Your task to perform on an android device: Go to notification settings Image 0: 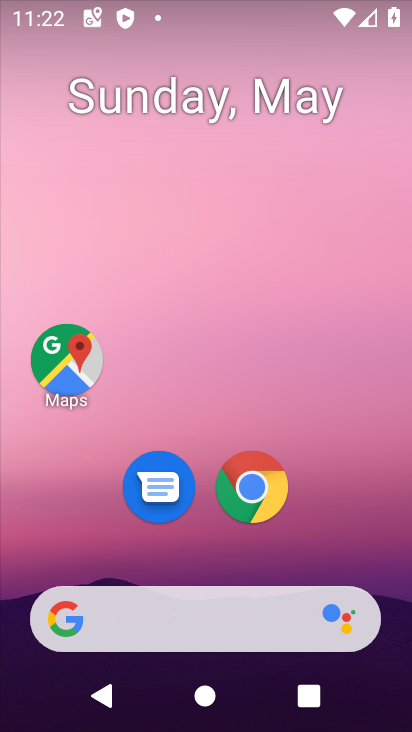
Step 0: drag from (358, 549) to (366, 68)
Your task to perform on an android device: Go to notification settings Image 1: 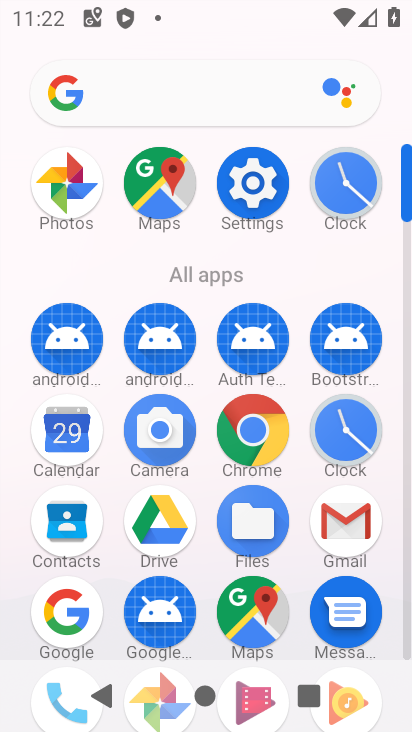
Step 1: click (264, 195)
Your task to perform on an android device: Go to notification settings Image 2: 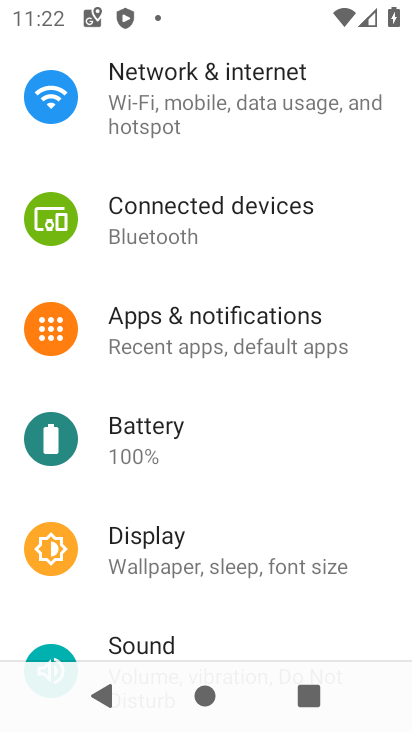
Step 2: drag from (360, 168) to (364, 294)
Your task to perform on an android device: Go to notification settings Image 3: 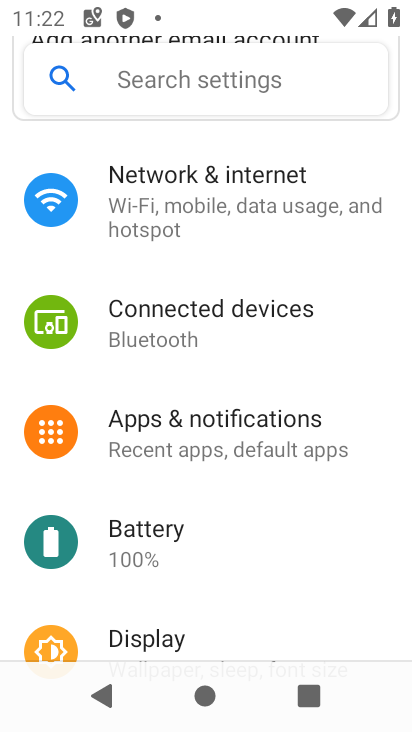
Step 3: drag from (364, 141) to (371, 385)
Your task to perform on an android device: Go to notification settings Image 4: 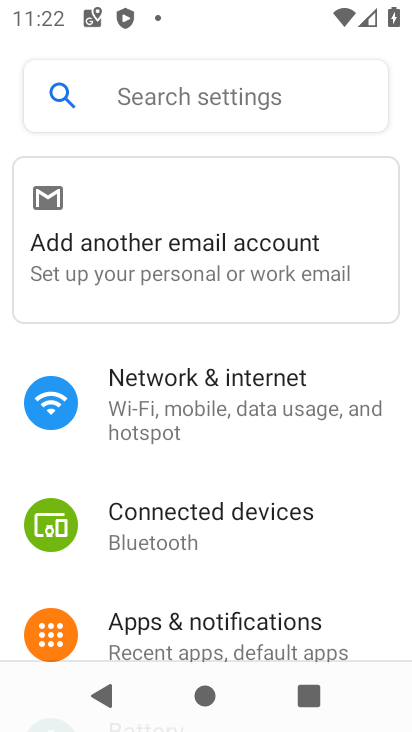
Step 4: drag from (357, 177) to (356, 492)
Your task to perform on an android device: Go to notification settings Image 5: 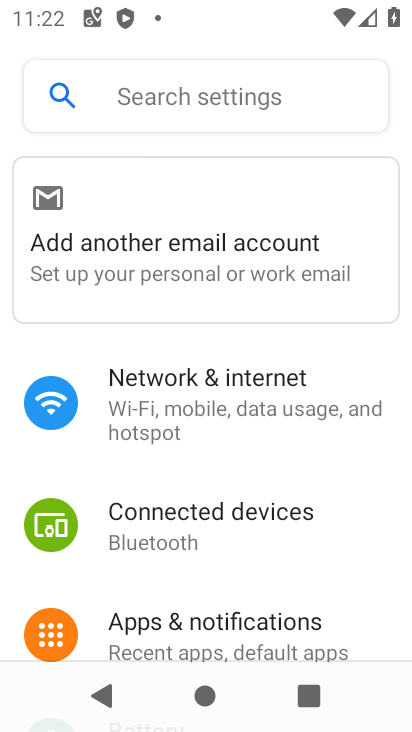
Step 5: drag from (347, 551) to (345, 348)
Your task to perform on an android device: Go to notification settings Image 6: 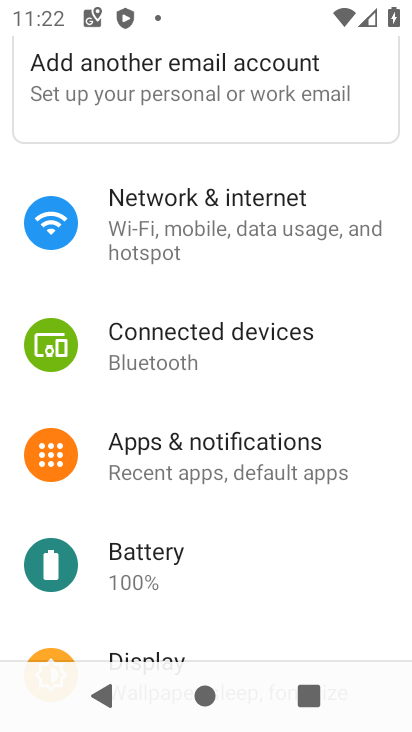
Step 6: drag from (345, 547) to (351, 334)
Your task to perform on an android device: Go to notification settings Image 7: 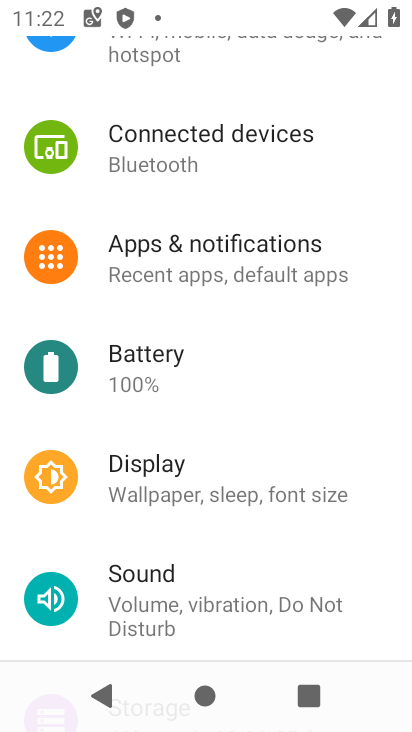
Step 7: click (290, 257)
Your task to perform on an android device: Go to notification settings Image 8: 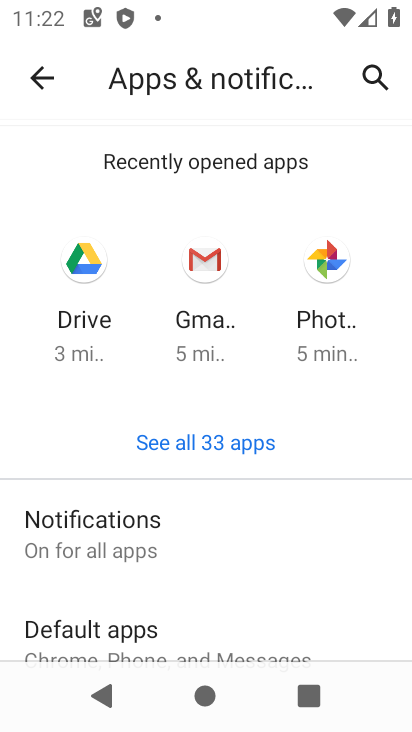
Step 8: drag from (277, 514) to (285, 327)
Your task to perform on an android device: Go to notification settings Image 9: 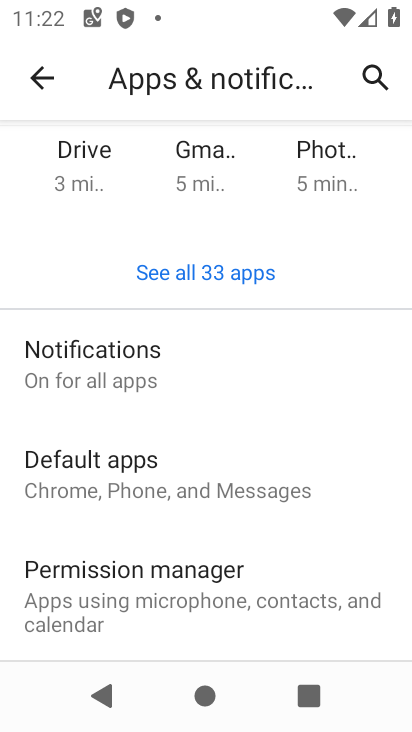
Step 9: click (132, 364)
Your task to perform on an android device: Go to notification settings Image 10: 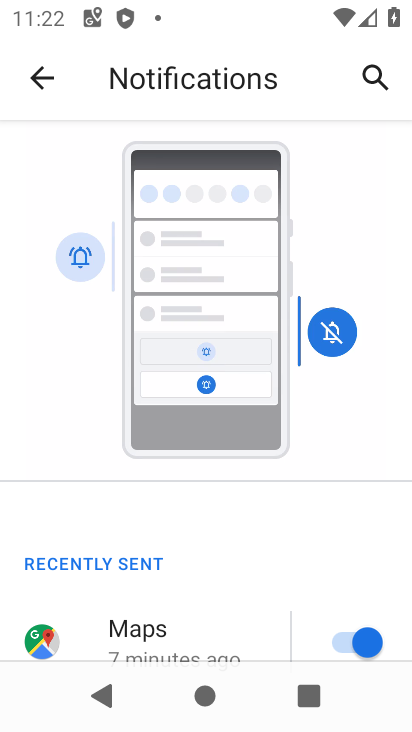
Step 10: task complete